Your task to perform on an android device: Add logitech g933 to the cart on target.com Image 0: 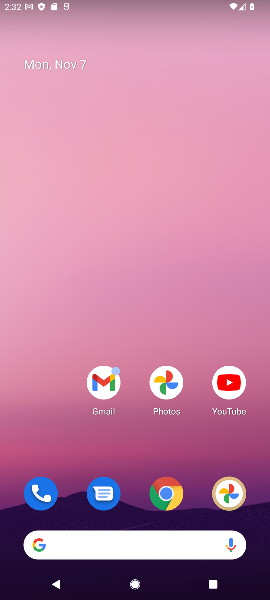
Step 0: press home button
Your task to perform on an android device: Add logitech g933 to the cart on target.com Image 1: 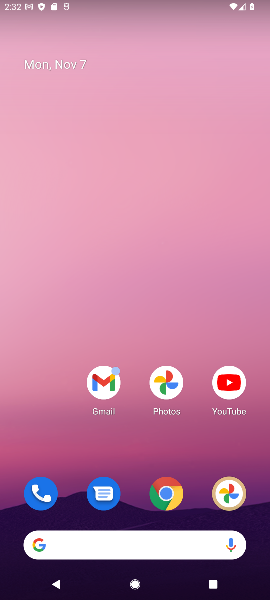
Step 1: drag from (141, 469) to (171, 53)
Your task to perform on an android device: Add logitech g933 to the cart on target.com Image 2: 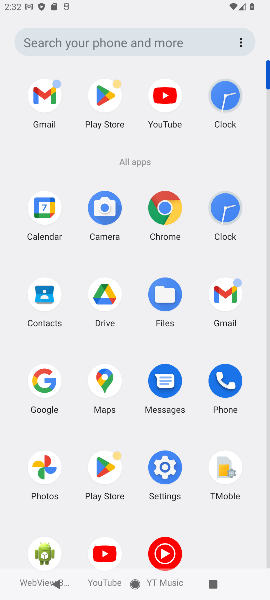
Step 2: click (162, 207)
Your task to perform on an android device: Add logitech g933 to the cart on target.com Image 3: 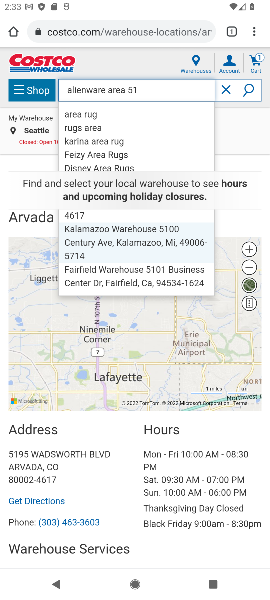
Step 3: click (87, 27)
Your task to perform on an android device: Add logitech g933 to the cart on target.com Image 4: 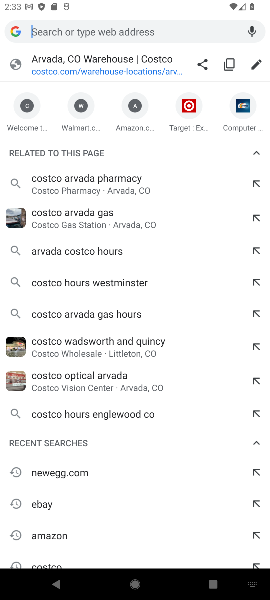
Step 4: type "target.com"
Your task to perform on an android device: Add logitech g933 to the cart on target.com Image 5: 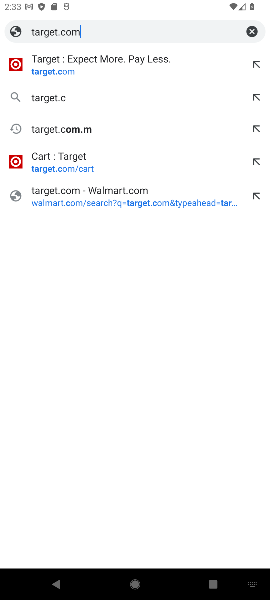
Step 5: type ""
Your task to perform on an android device: Add logitech g933 to the cart on target.com Image 6: 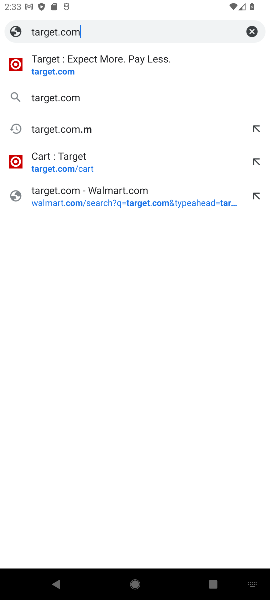
Step 6: click (69, 71)
Your task to perform on an android device: Add logitech g933 to the cart on target.com Image 7: 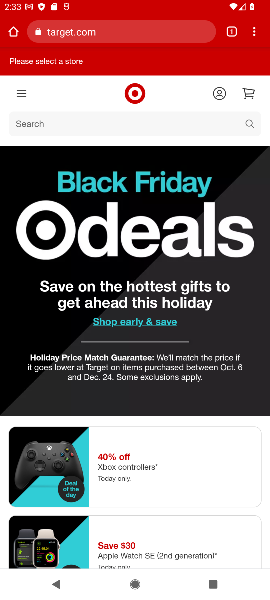
Step 7: click (47, 123)
Your task to perform on an android device: Add logitech g933 to the cart on target.com Image 8: 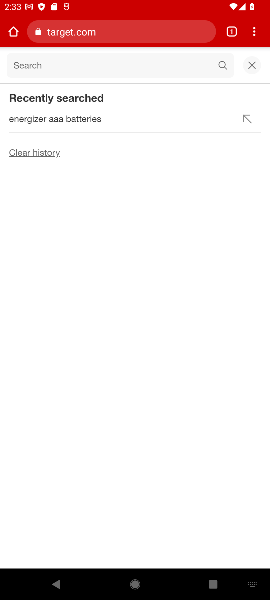
Step 8: type "logitech g933"
Your task to perform on an android device: Add logitech g933 to the cart on target.com Image 9: 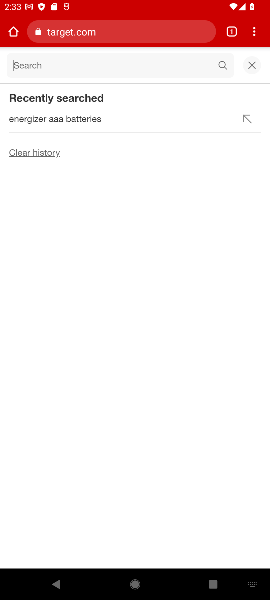
Step 9: type ""
Your task to perform on an android device: Add logitech g933 to the cart on target.com Image 10: 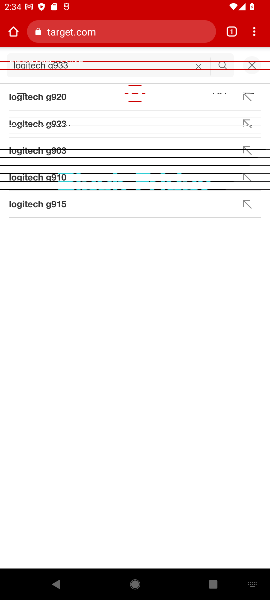
Step 10: click (58, 122)
Your task to perform on an android device: Add logitech g933 to the cart on target.com Image 11: 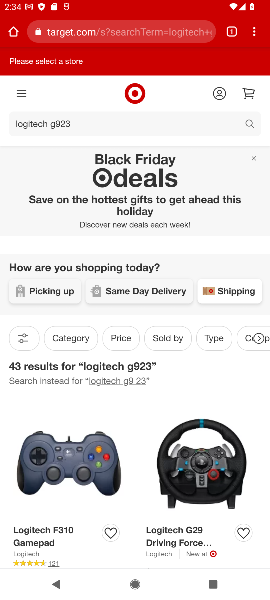
Step 11: task complete